Your task to perform on an android device: set an alarm Image 0: 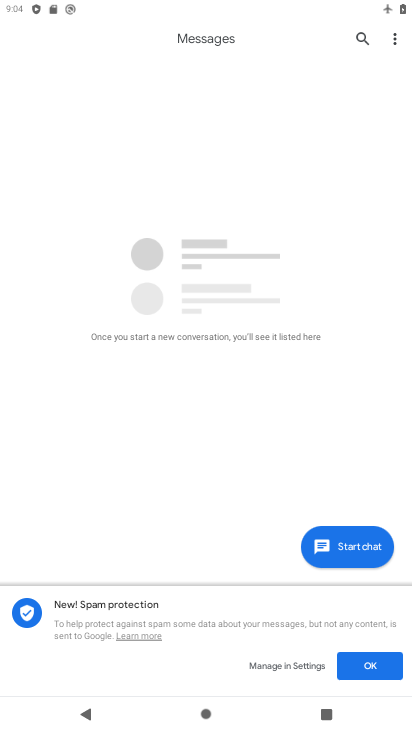
Step 0: press home button
Your task to perform on an android device: set an alarm Image 1: 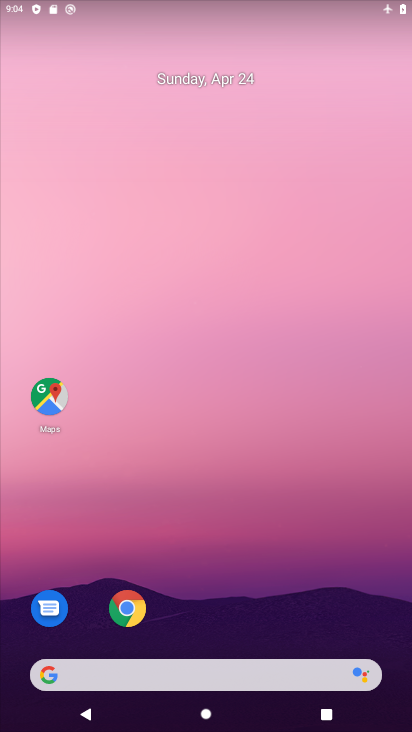
Step 1: drag from (196, 644) to (219, 169)
Your task to perform on an android device: set an alarm Image 2: 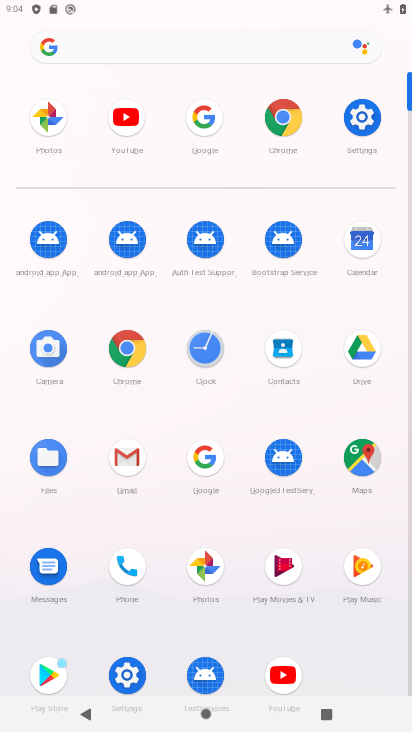
Step 2: click (209, 350)
Your task to perform on an android device: set an alarm Image 3: 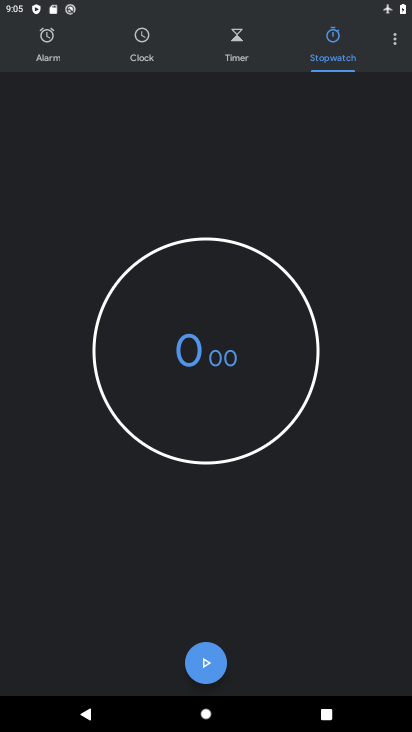
Step 3: click (55, 47)
Your task to perform on an android device: set an alarm Image 4: 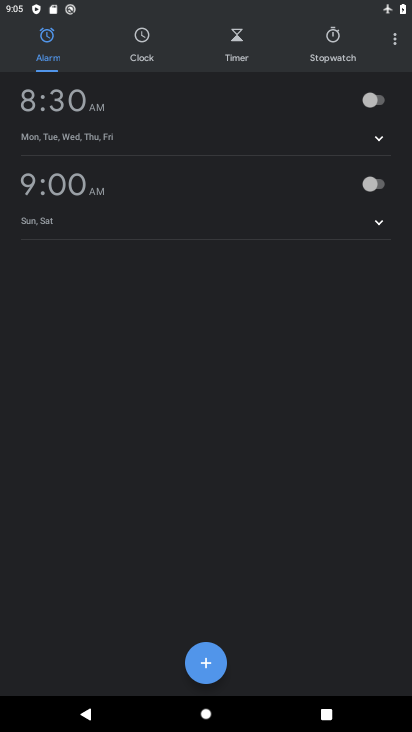
Step 4: click (377, 103)
Your task to perform on an android device: set an alarm Image 5: 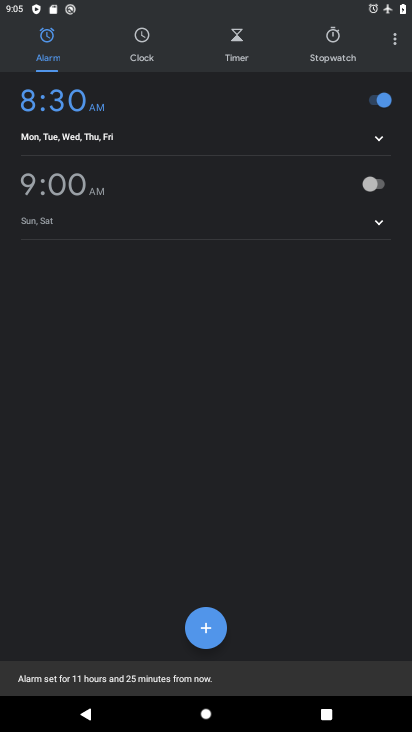
Step 5: task complete